Your task to perform on an android device: Search for runner rugs on Crate & Barrel Image 0: 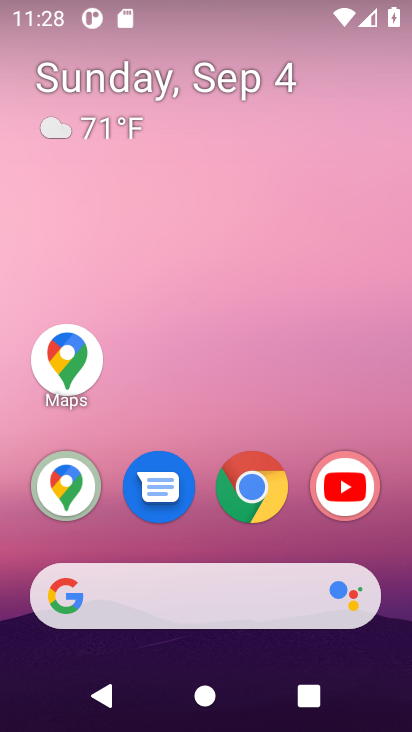
Step 0: click (152, 487)
Your task to perform on an android device: Search for runner rugs on Crate & Barrel Image 1: 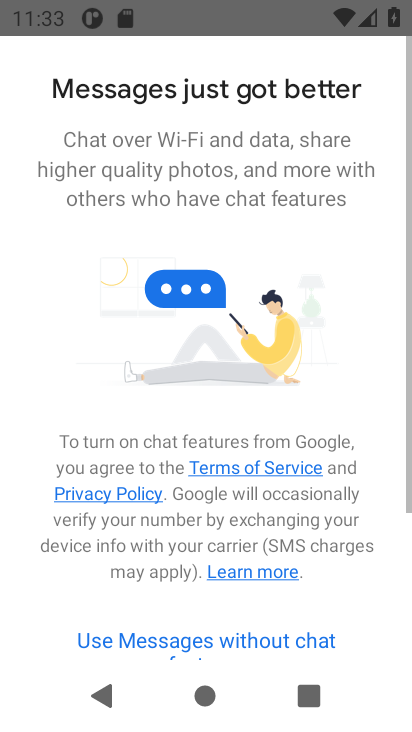
Step 1: task complete